Your task to perform on an android device: find which apps use the phone's location Image 0: 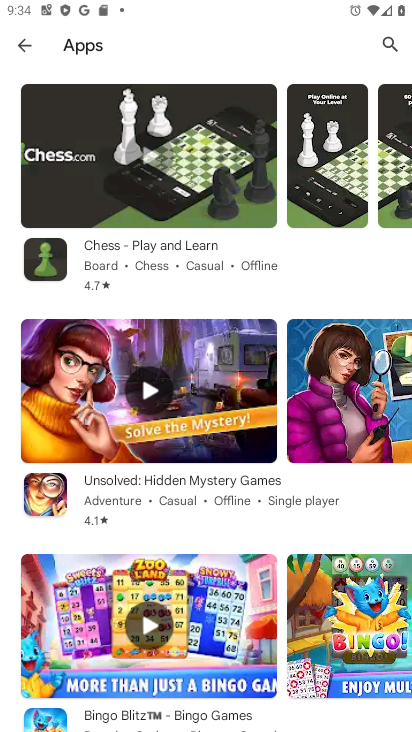
Step 0: press home button
Your task to perform on an android device: find which apps use the phone's location Image 1: 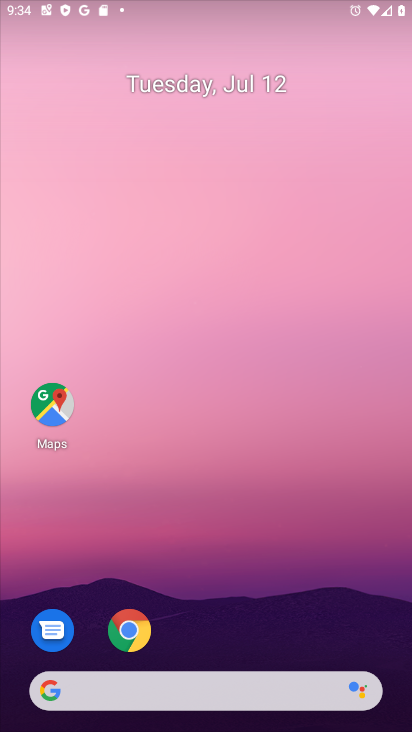
Step 1: drag from (232, 631) to (285, 125)
Your task to perform on an android device: find which apps use the phone's location Image 2: 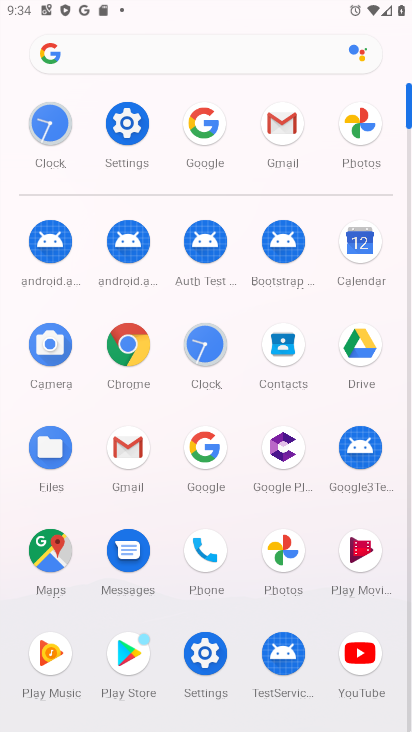
Step 2: click (122, 118)
Your task to perform on an android device: find which apps use the phone's location Image 3: 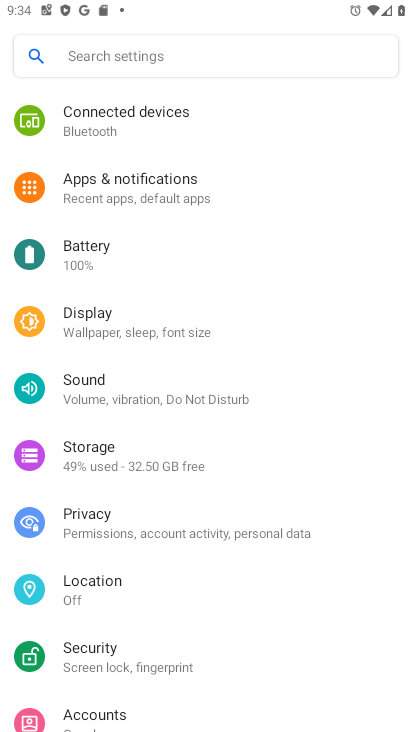
Step 3: click (111, 588)
Your task to perform on an android device: find which apps use the phone's location Image 4: 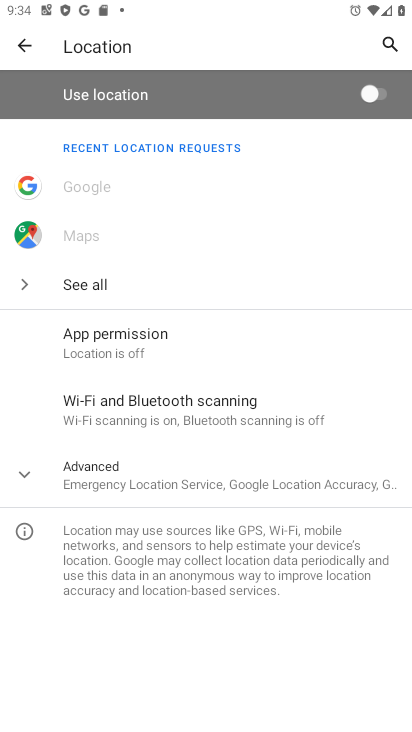
Step 4: click (132, 334)
Your task to perform on an android device: find which apps use the phone's location Image 5: 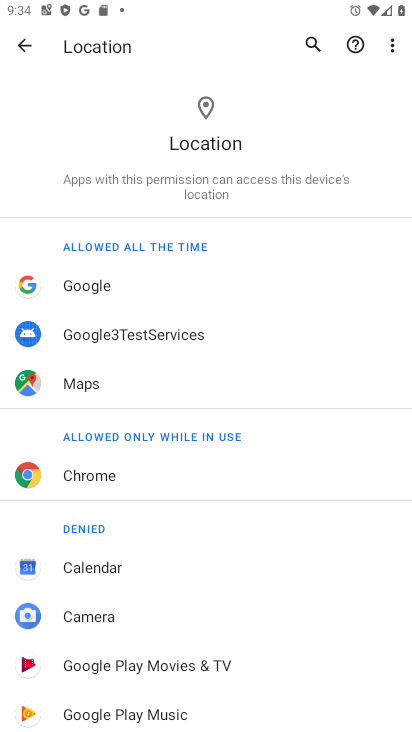
Step 5: task complete